Your task to perform on an android device: Open the map Image 0: 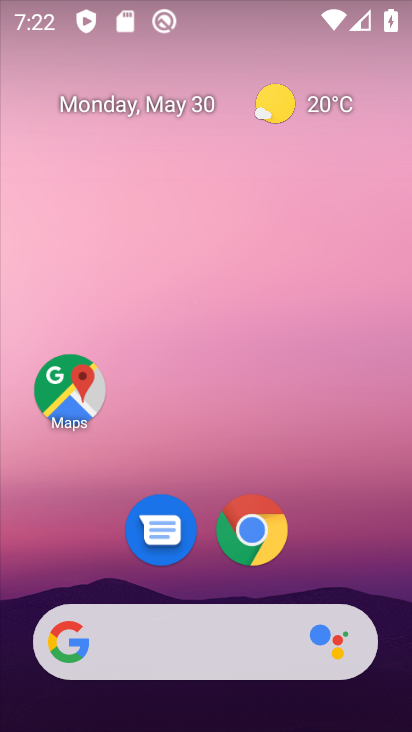
Step 0: press home button
Your task to perform on an android device: Open the map Image 1: 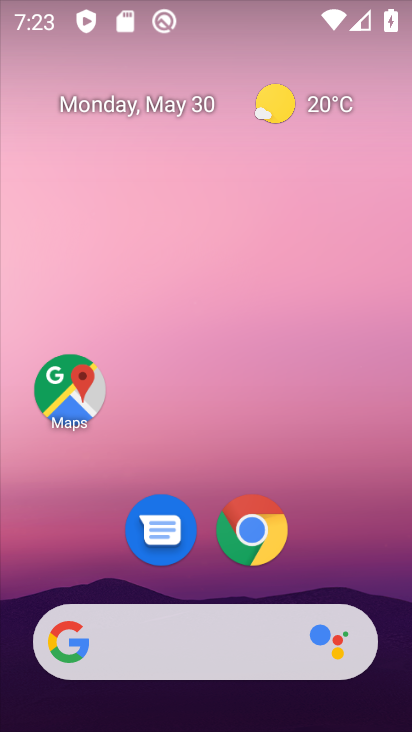
Step 1: click (65, 392)
Your task to perform on an android device: Open the map Image 2: 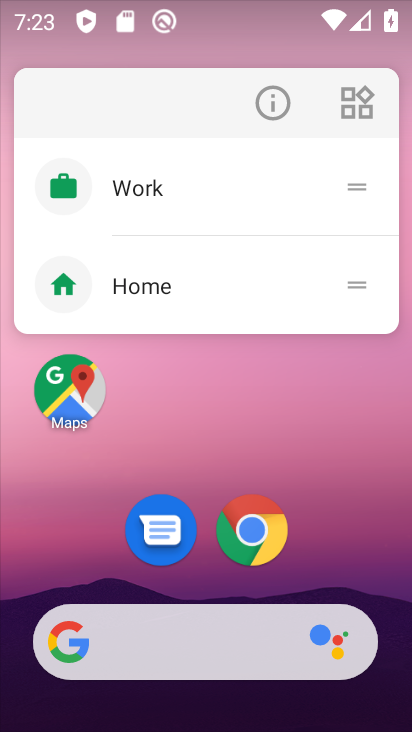
Step 2: click (65, 386)
Your task to perform on an android device: Open the map Image 3: 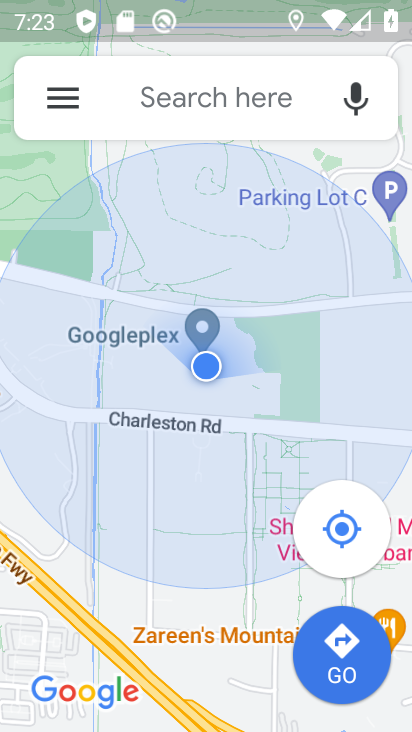
Step 3: task complete